Your task to perform on an android device: Look up the best selling patio furniture on Home Depot Image 0: 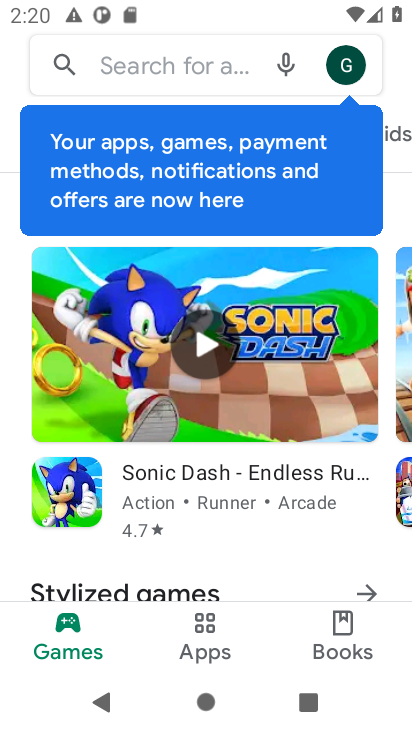
Step 0: press home button
Your task to perform on an android device: Look up the best selling patio furniture on Home Depot Image 1: 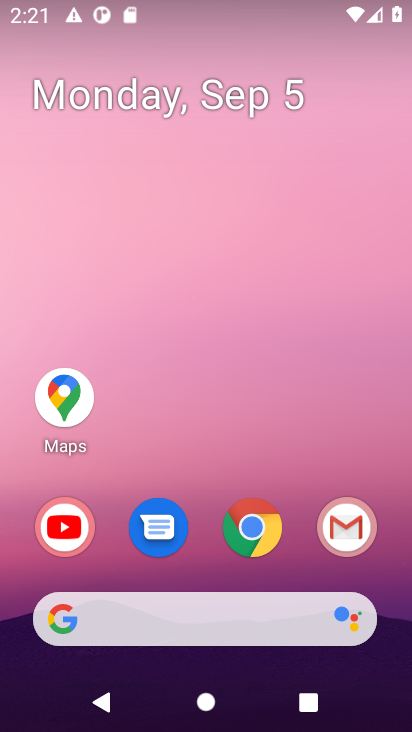
Step 1: click (243, 527)
Your task to perform on an android device: Look up the best selling patio furniture on Home Depot Image 2: 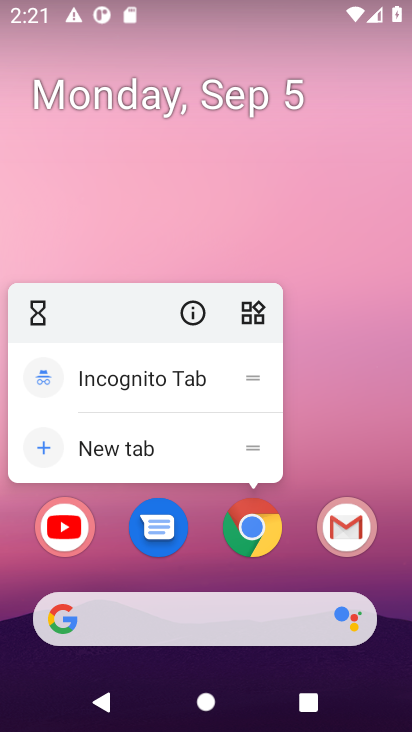
Step 2: click (243, 527)
Your task to perform on an android device: Look up the best selling patio furniture on Home Depot Image 3: 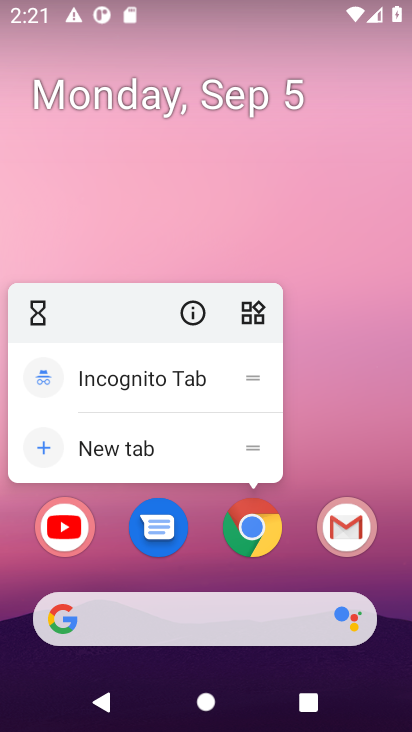
Step 3: click (243, 527)
Your task to perform on an android device: Look up the best selling patio furniture on Home Depot Image 4: 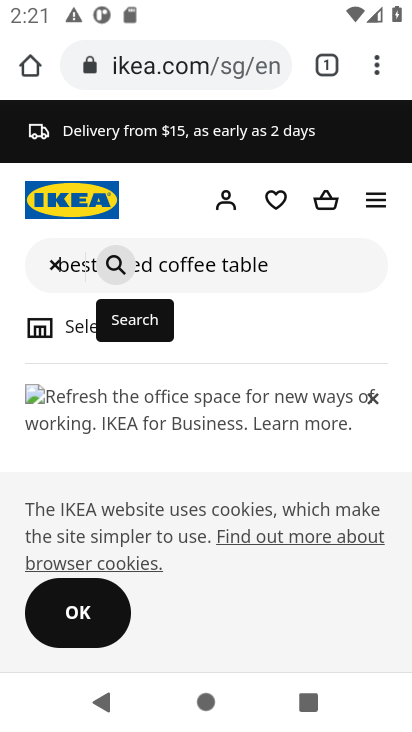
Step 4: click (219, 67)
Your task to perform on an android device: Look up the best selling patio furniture on Home Depot Image 5: 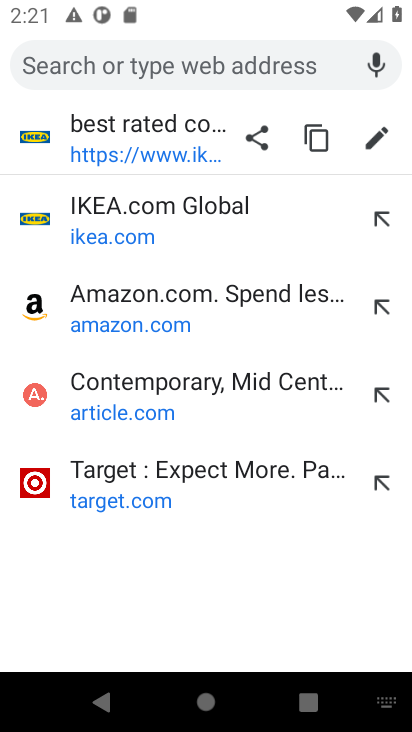
Step 5: type "the home depot"
Your task to perform on an android device: Look up the best selling patio furniture on Home Depot Image 6: 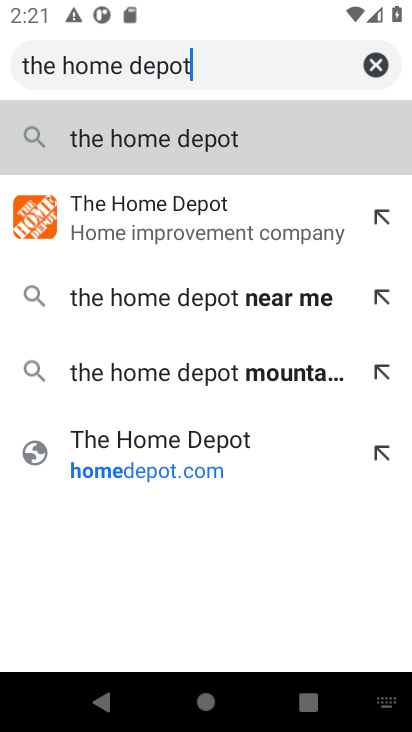
Step 6: click (254, 59)
Your task to perform on an android device: Look up the best selling patio furniture on Home Depot Image 7: 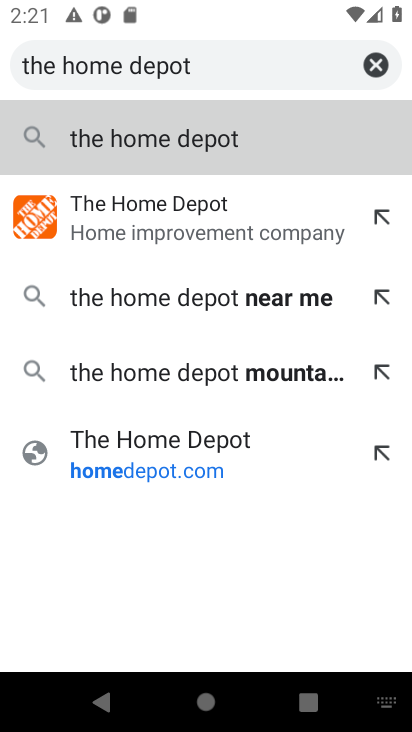
Step 7: click (173, 153)
Your task to perform on an android device: Look up the best selling patio furniture on Home Depot Image 8: 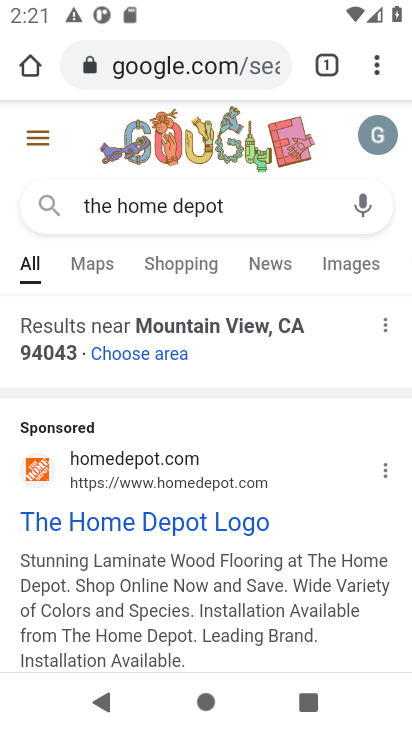
Step 8: click (136, 495)
Your task to perform on an android device: Look up the best selling patio furniture on Home Depot Image 9: 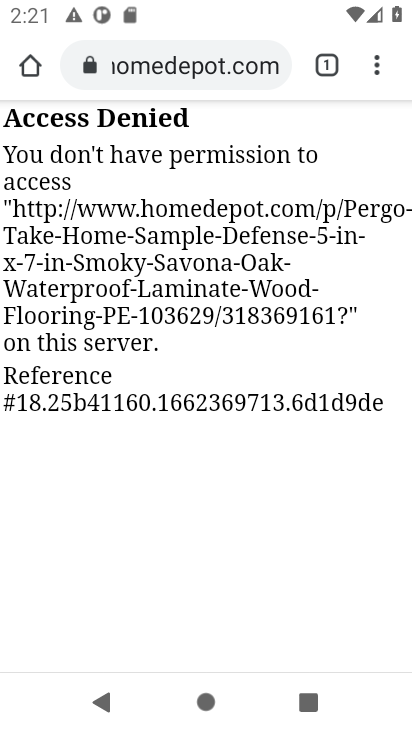
Step 9: task complete